Your task to perform on an android device: check google app version Image 0: 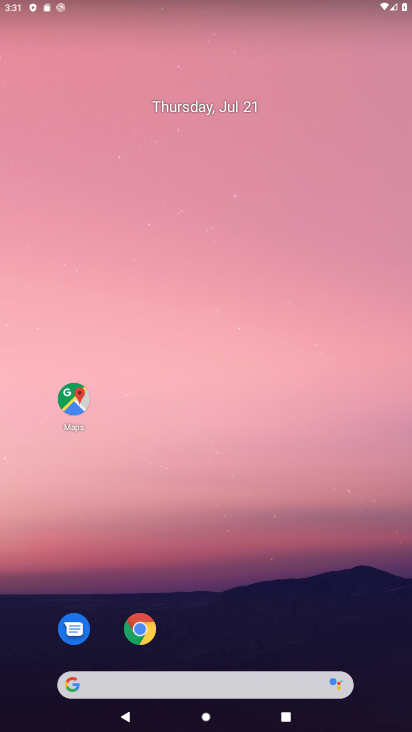
Step 0: drag from (290, 613) to (324, 129)
Your task to perform on an android device: check google app version Image 1: 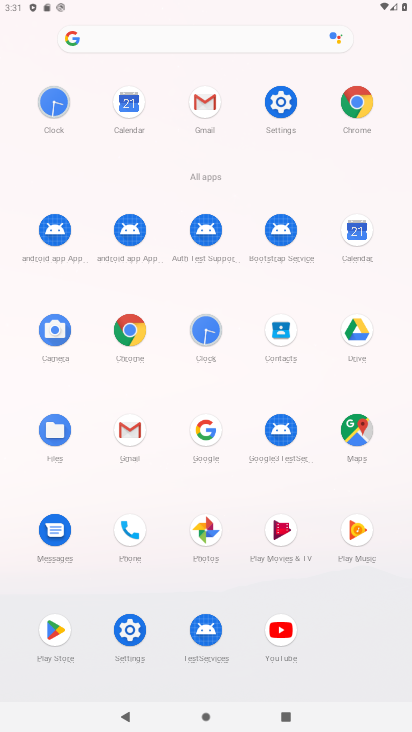
Step 1: click (212, 424)
Your task to perform on an android device: check google app version Image 2: 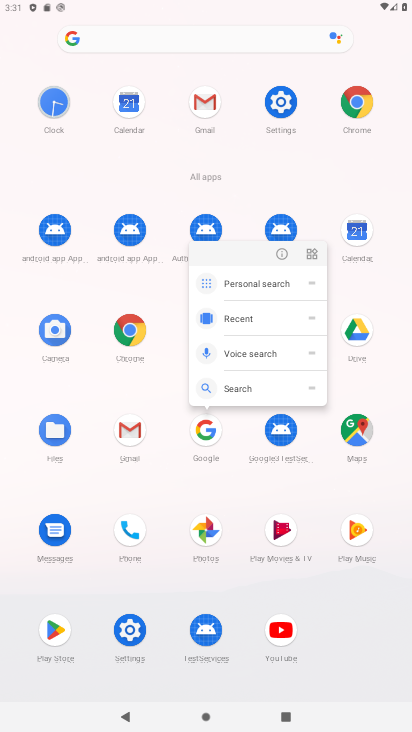
Step 2: click (278, 249)
Your task to perform on an android device: check google app version Image 3: 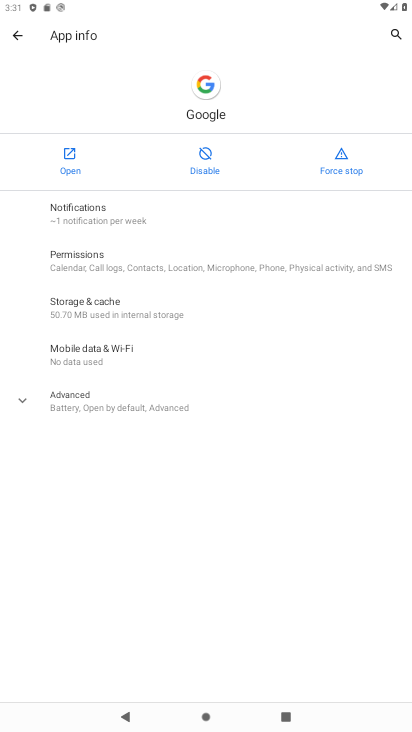
Step 3: click (141, 396)
Your task to perform on an android device: check google app version Image 4: 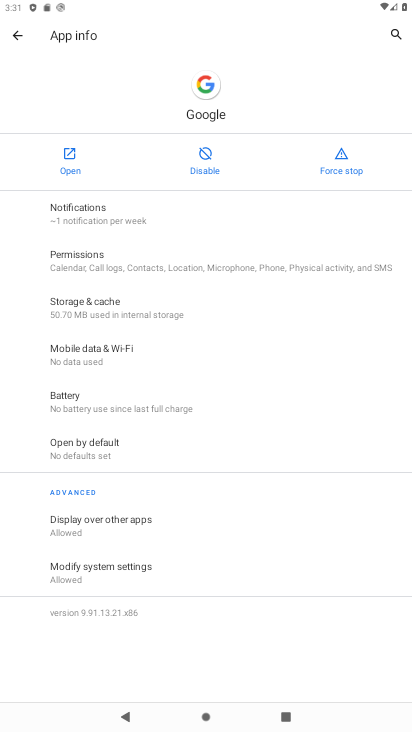
Step 4: task complete